Your task to perform on an android device: Open Chrome and go to settings Image 0: 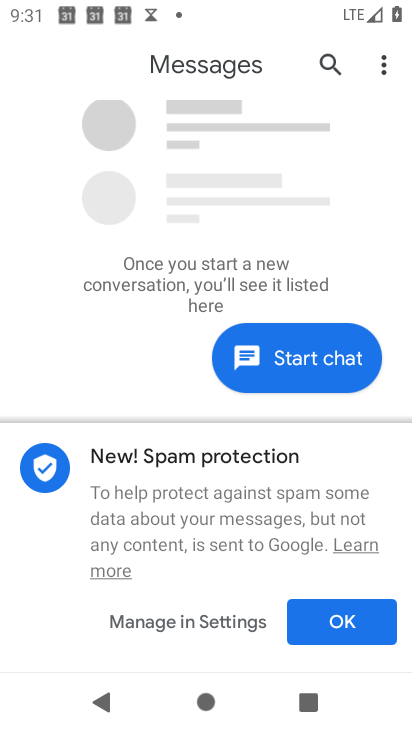
Step 0: press enter
Your task to perform on an android device: Open Chrome and go to settings Image 1: 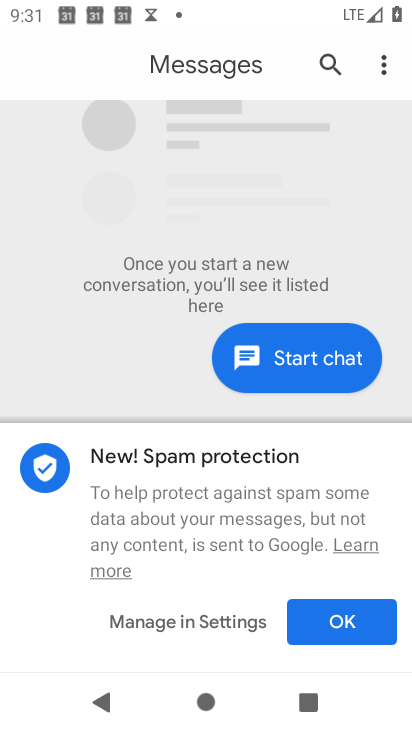
Step 1: press home button
Your task to perform on an android device: Open Chrome and go to settings Image 2: 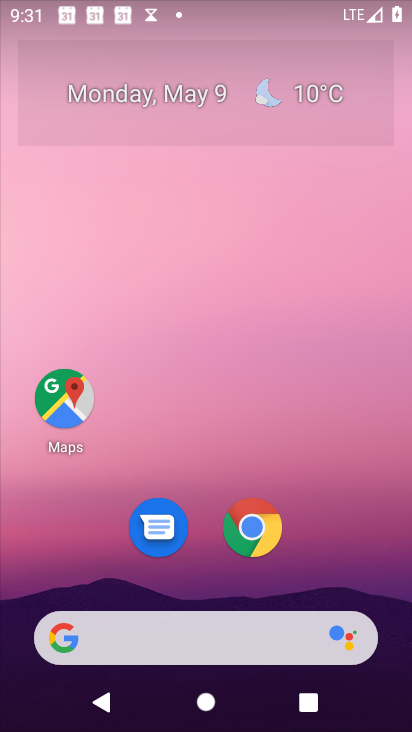
Step 2: click (254, 537)
Your task to perform on an android device: Open Chrome and go to settings Image 3: 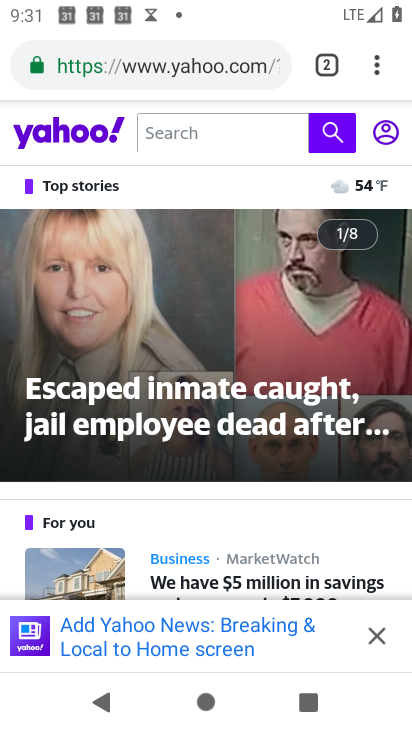
Step 3: click (378, 70)
Your task to perform on an android device: Open Chrome and go to settings Image 4: 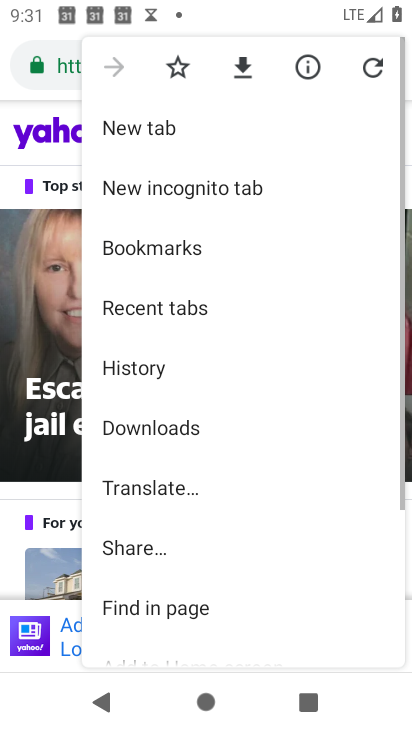
Step 4: drag from (164, 618) to (207, 303)
Your task to perform on an android device: Open Chrome and go to settings Image 5: 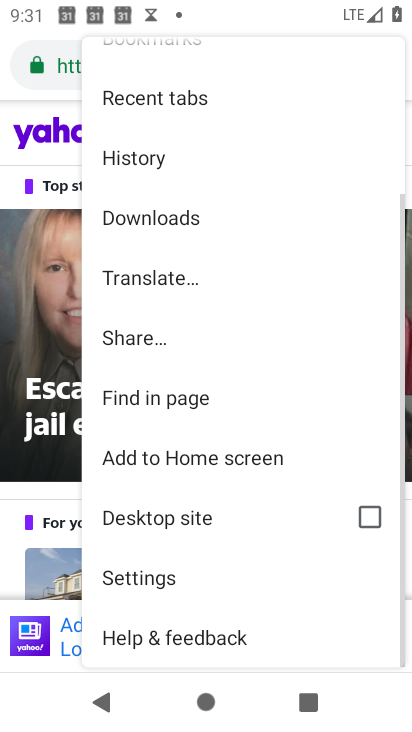
Step 5: click (152, 571)
Your task to perform on an android device: Open Chrome and go to settings Image 6: 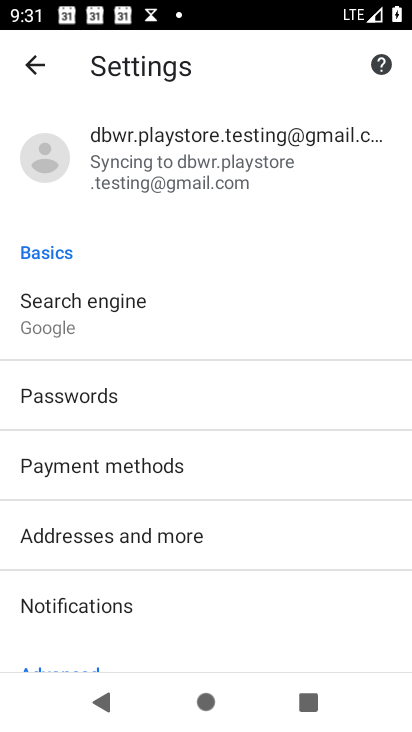
Step 6: task complete